Your task to perform on an android device: open wifi settings Image 0: 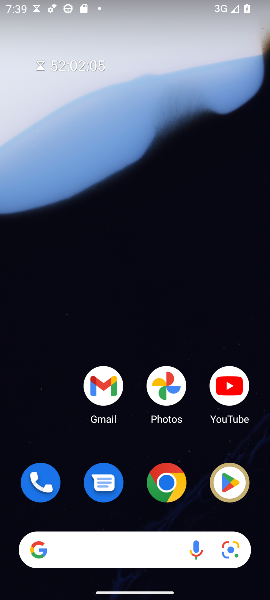
Step 0: drag from (115, 536) to (181, 80)
Your task to perform on an android device: open wifi settings Image 1: 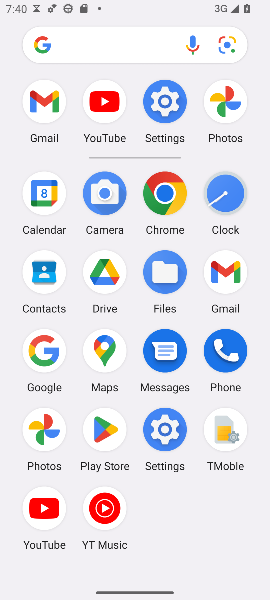
Step 1: click (169, 97)
Your task to perform on an android device: open wifi settings Image 2: 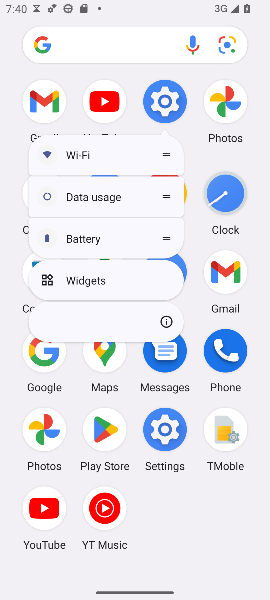
Step 2: click (169, 96)
Your task to perform on an android device: open wifi settings Image 3: 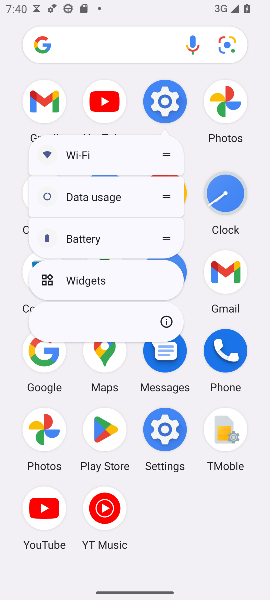
Step 3: click (170, 94)
Your task to perform on an android device: open wifi settings Image 4: 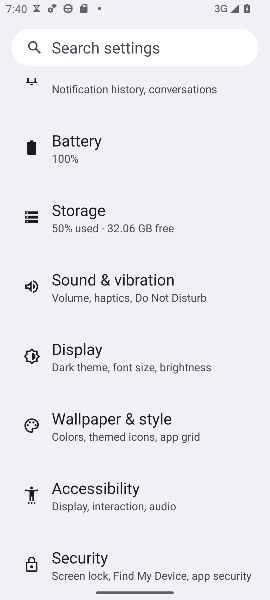
Step 4: drag from (170, 94) to (93, 426)
Your task to perform on an android device: open wifi settings Image 5: 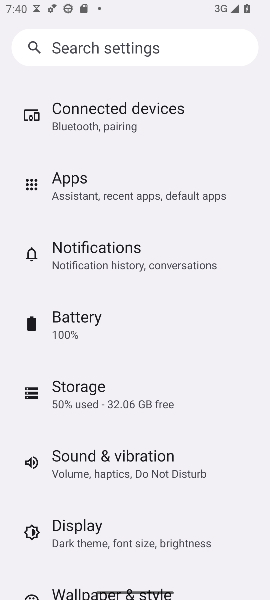
Step 5: drag from (133, 159) to (67, 526)
Your task to perform on an android device: open wifi settings Image 6: 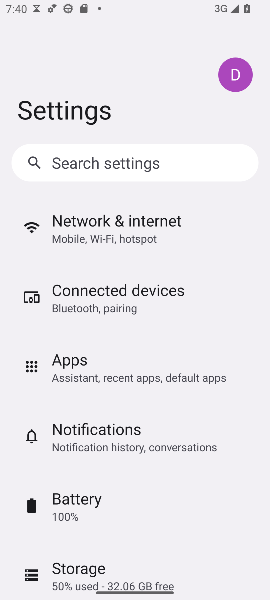
Step 6: click (93, 226)
Your task to perform on an android device: open wifi settings Image 7: 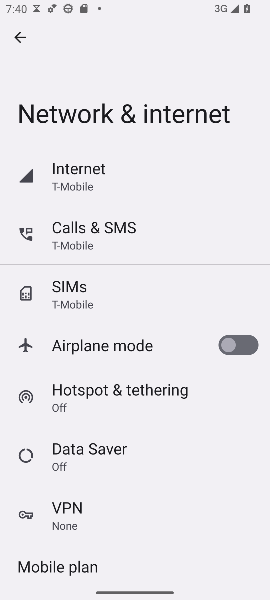
Step 7: click (79, 175)
Your task to perform on an android device: open wifi settings Image 8: 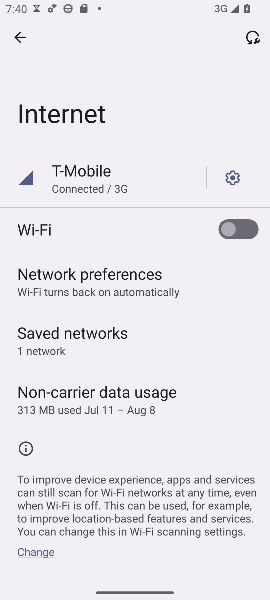
Step 8: click (31, 239)
Your task to perform on an android device: open wifi settings Image 9: 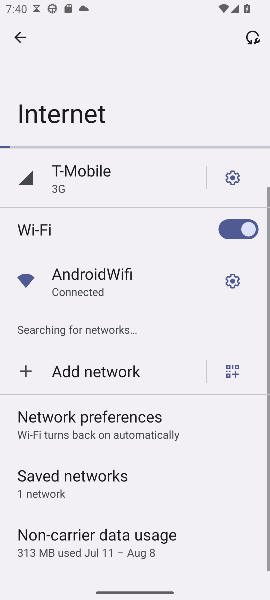
Step 9: task complete